Your task to perform on an android device: Search for Italian restaurants on Maps Image 0: 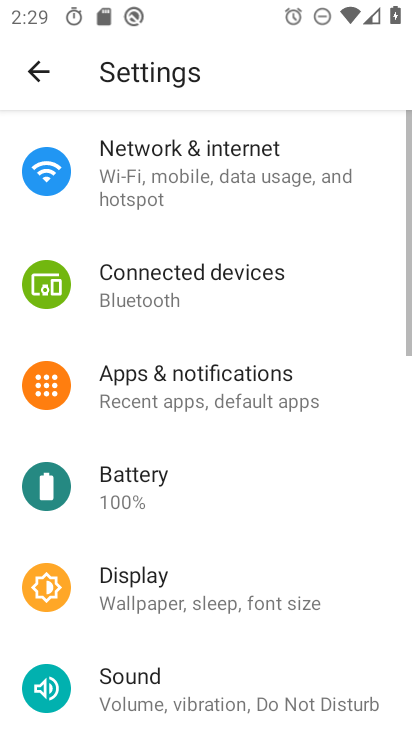
Step 0: press home button
Your task to perform on an android device: Search for Italian restaurants on Maps Image 1: 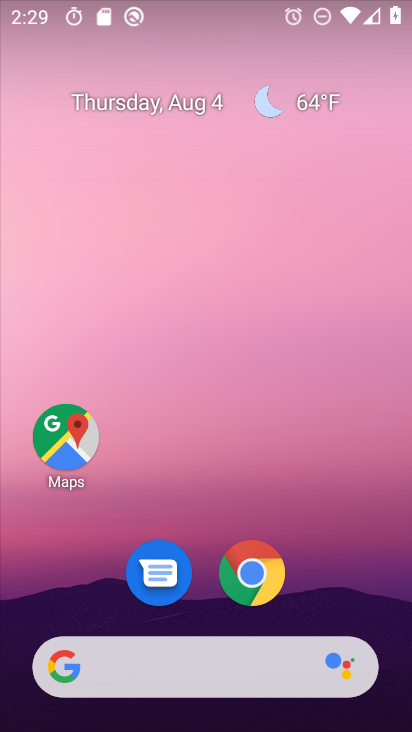
Step 1: drag from (352, 608) to (322, 50)
Your task to perform on an android device: Search for Italian restaurants on Maps Image 2: 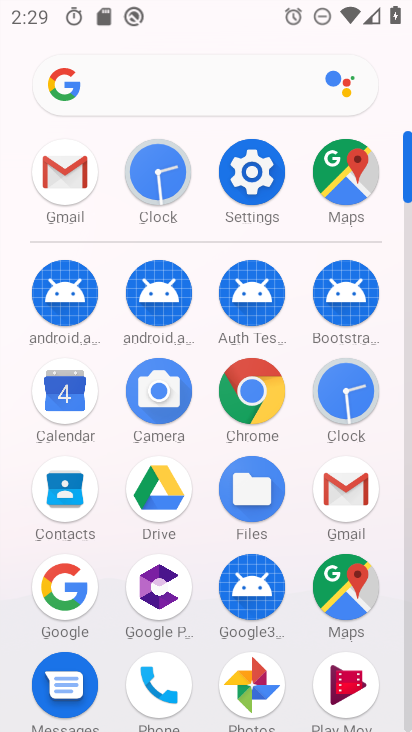
Step 2: click (337, 595)
Your task to perform on an android device: Search for Italian restaurants on Maps Image 3: 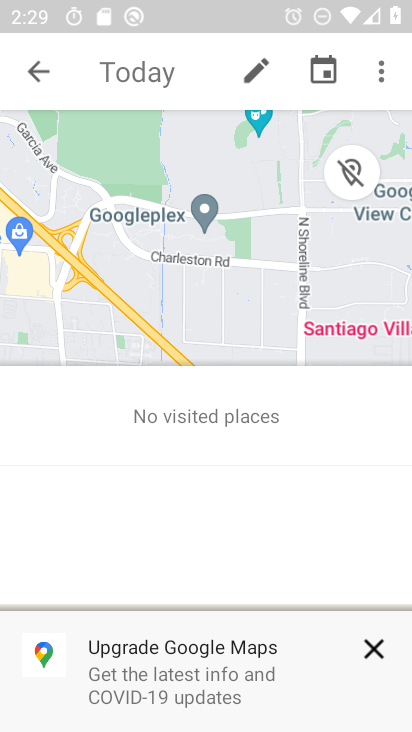
Step 3: click (47, 64)
Your task to perform on an android device: Search for Italian restaurants on Maps Image 4: 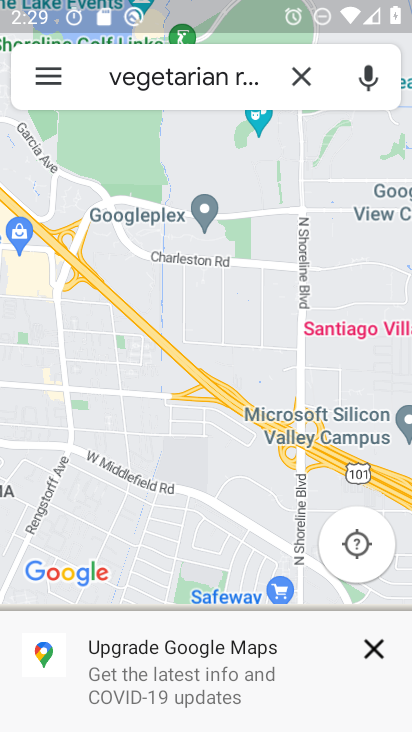
Step 4: click (147, 73)
Your task to perform on an android device: Search for Italian restaurants on Maps Image 5: 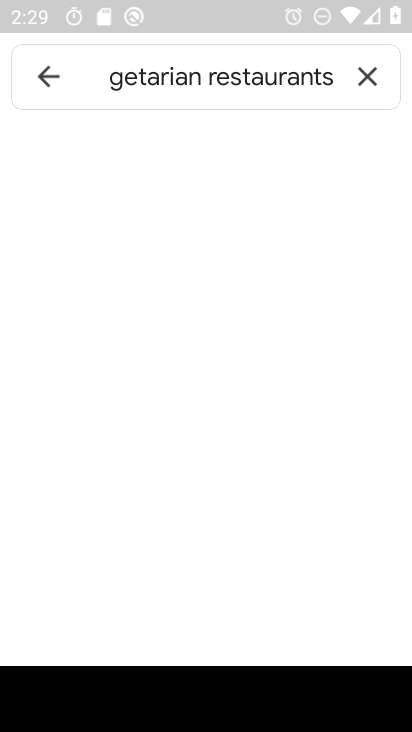
Step 5: click (371, 71)
Your task to perform on an android device: Search for Italian restaurants on Maps Image 6: 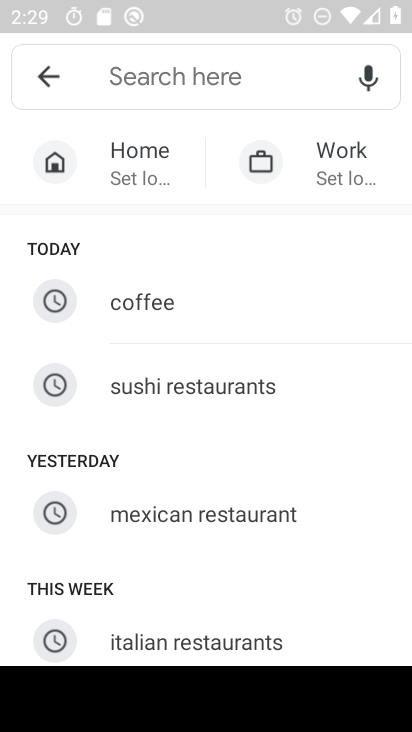
Step 6: click (246, 637)
Your task to perform on an android device: Search for Italian restaurants on Maps Image 7: 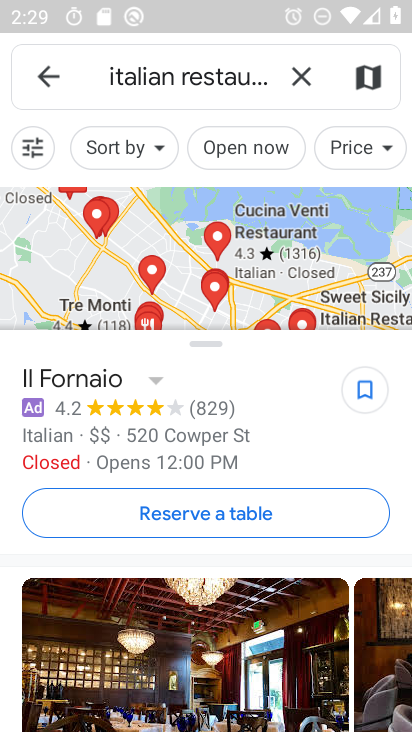
Step 7: task complete